Your task to perform on an android device: snooze an email in the gmail app Image 0: 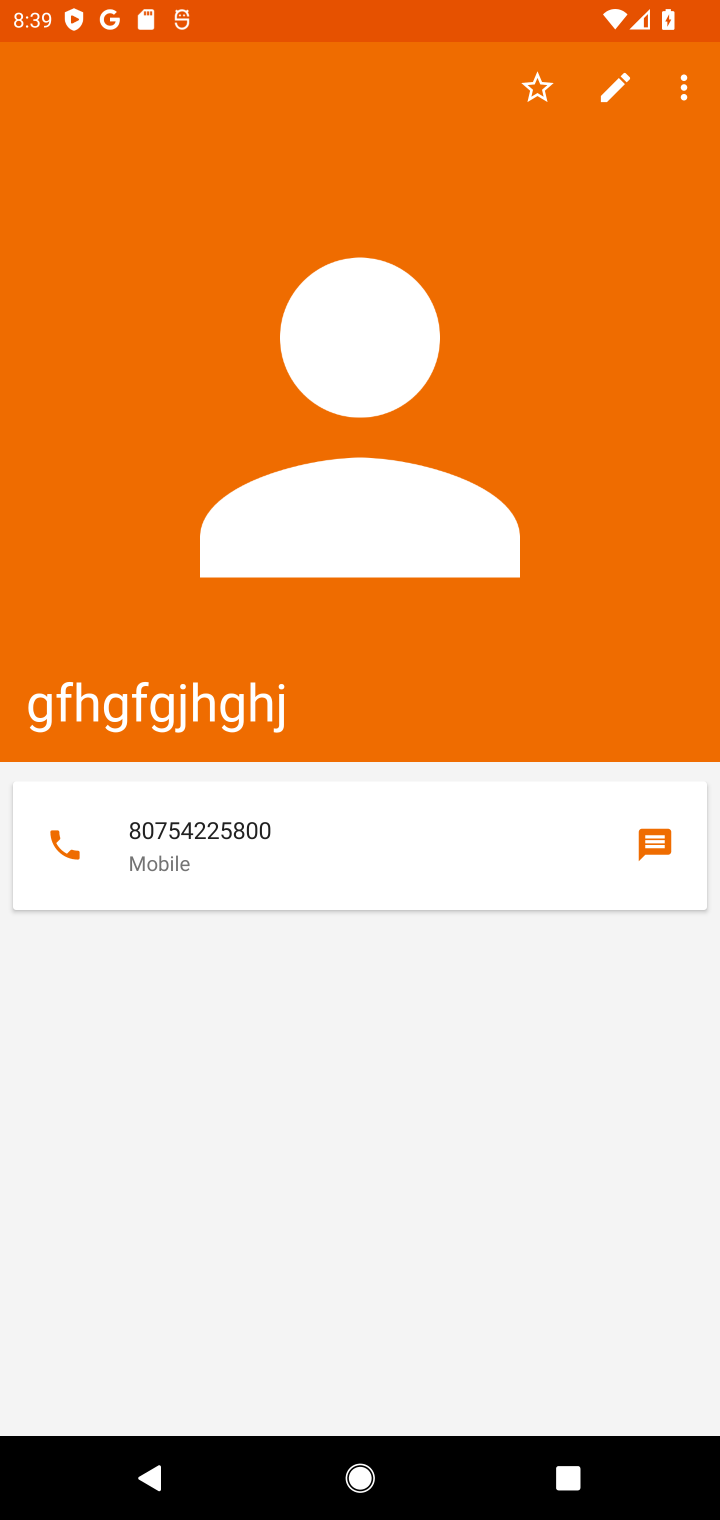
Step 0: press back button
Your task to perform on an android device: snooze an email in the gmail app Image 1: 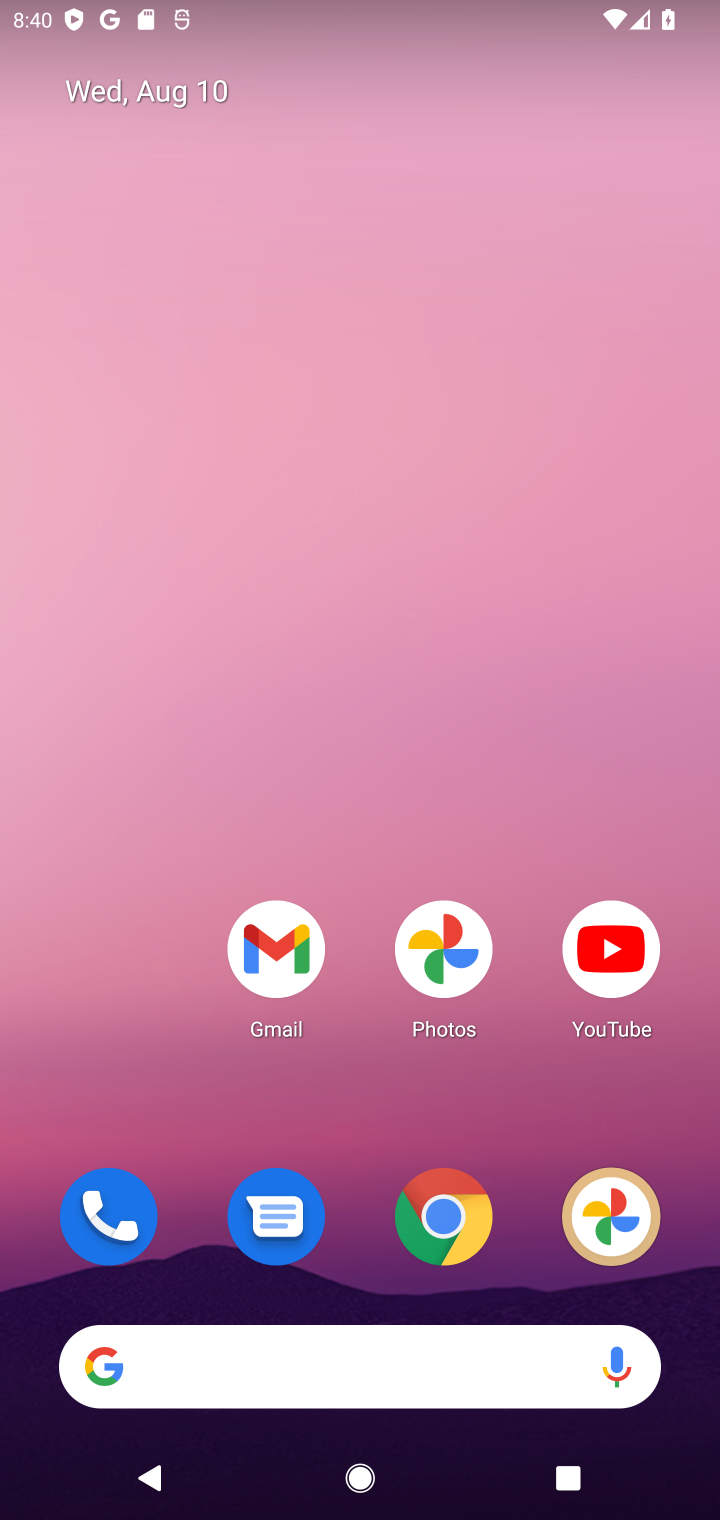
Step 1: click (603, 156)
Your task to perform on an android device: snooze an email in the gmail app Image 2: 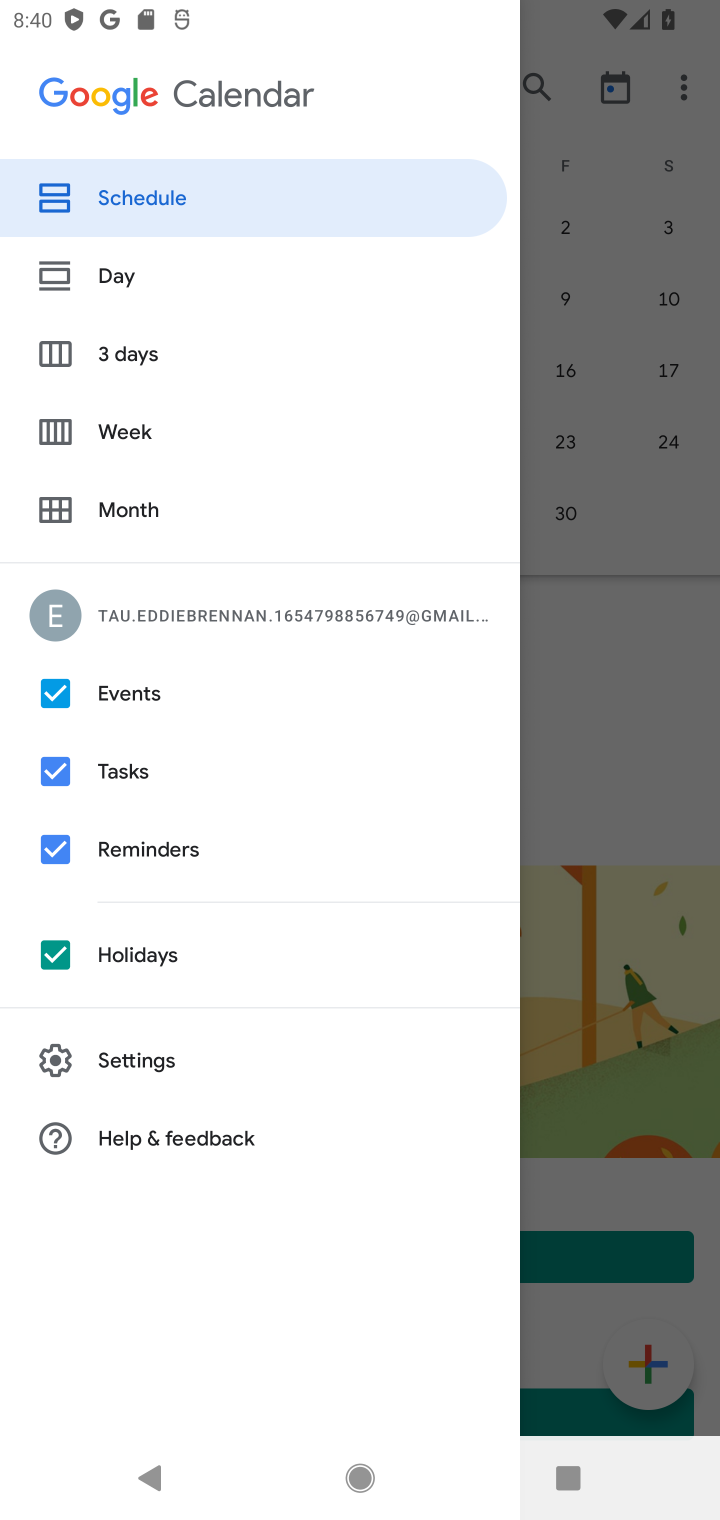
Step 2: press home button
Your task to perform on an android device: snooze an email in the gmail app Image 3: 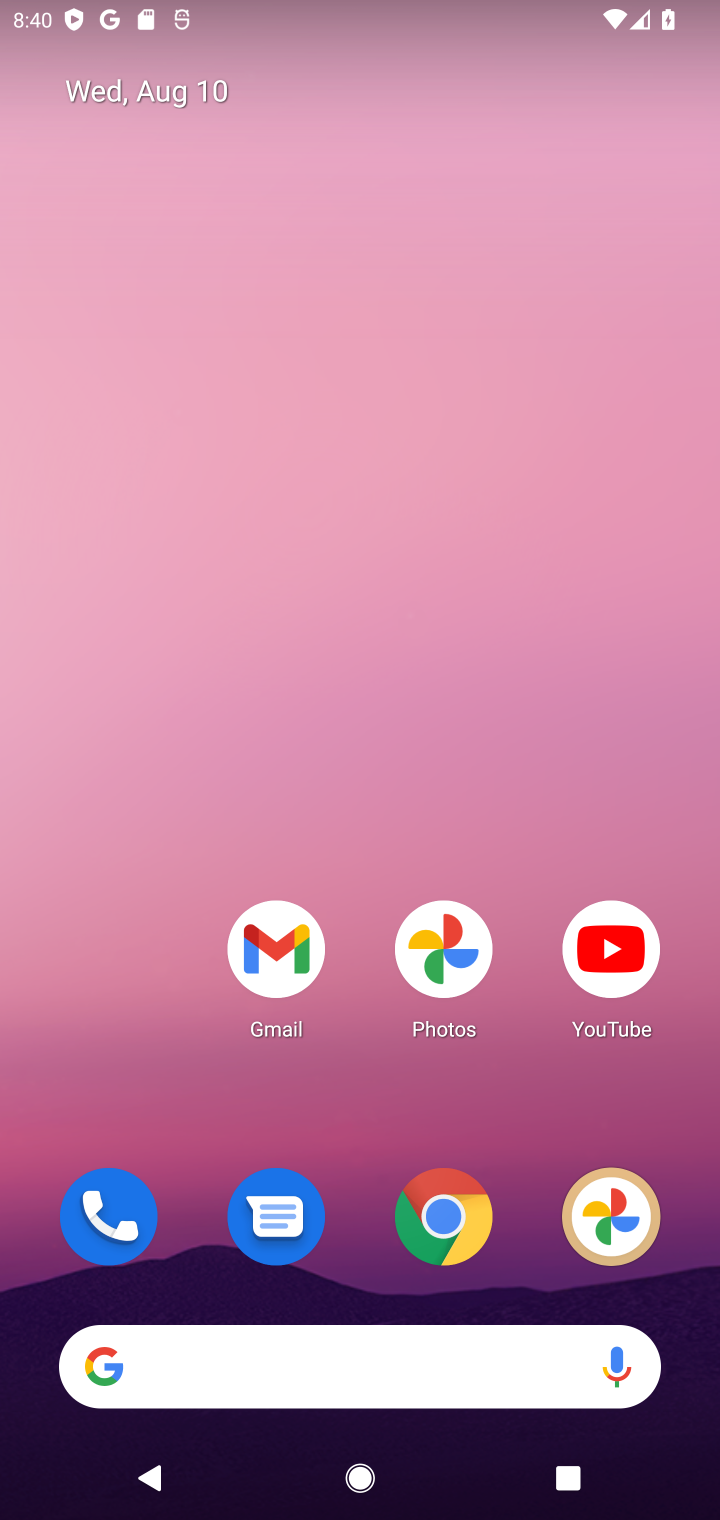
Step 3: click (280, 938)
Your task to perform on an android device: snooze an email in the gmail app Image 4: 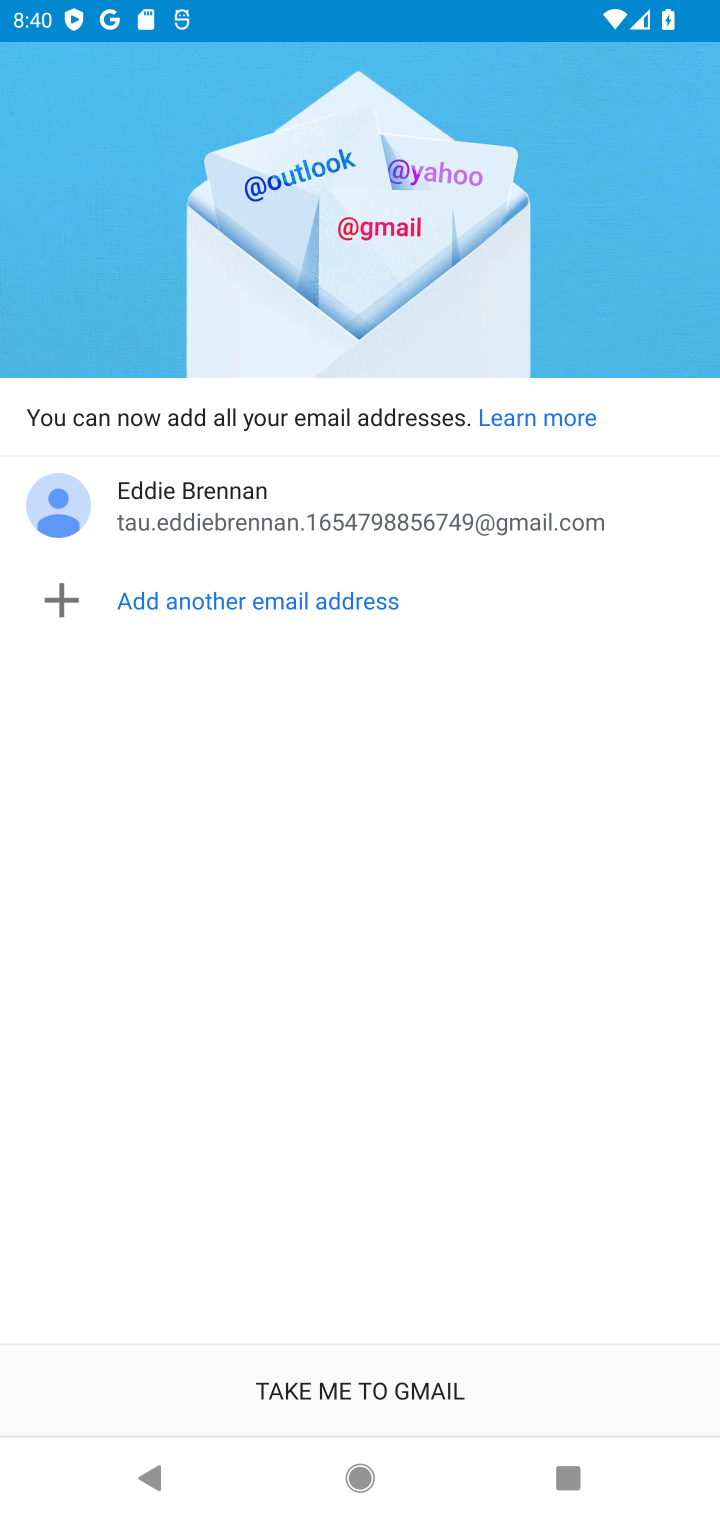
Step 4: click (471, 1399)
Your task to perform on an android device: snooze an email in the gmail app Image 5: 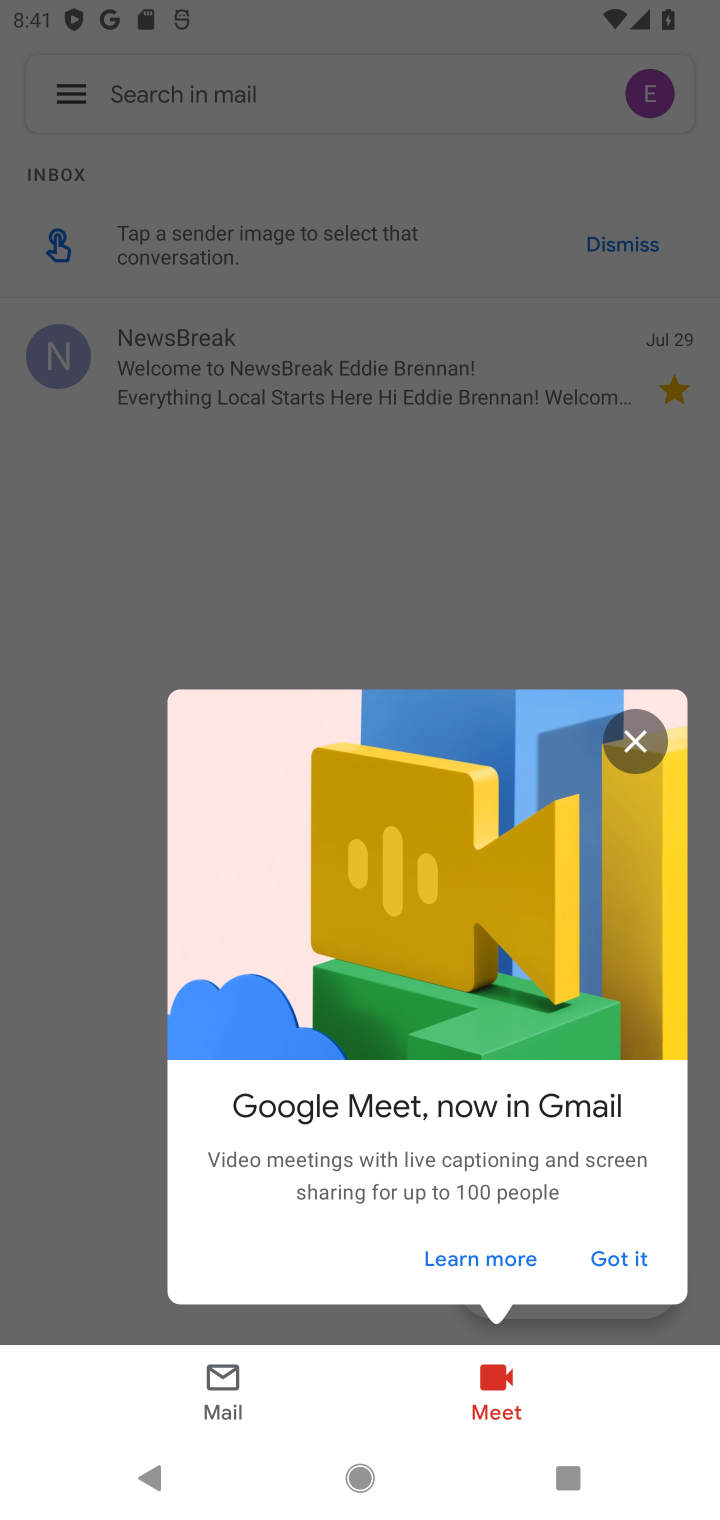
Step 5: click (611, 1243)
Your task to perform on an android device: snooze an email in the gmail app Image 6: 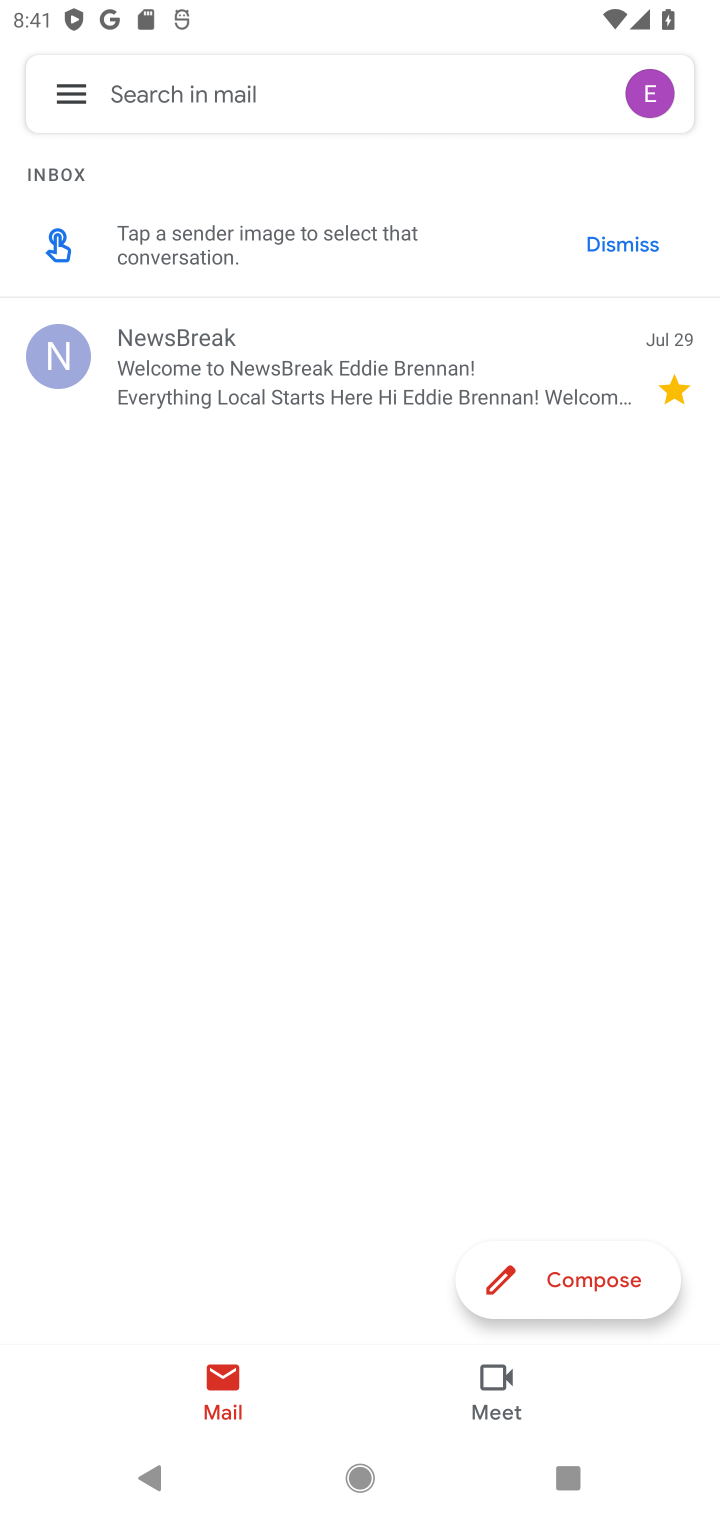
Step 6: click (48, 108)
Your task to perform on an android device: snooze an email in the gmail app Image 7: 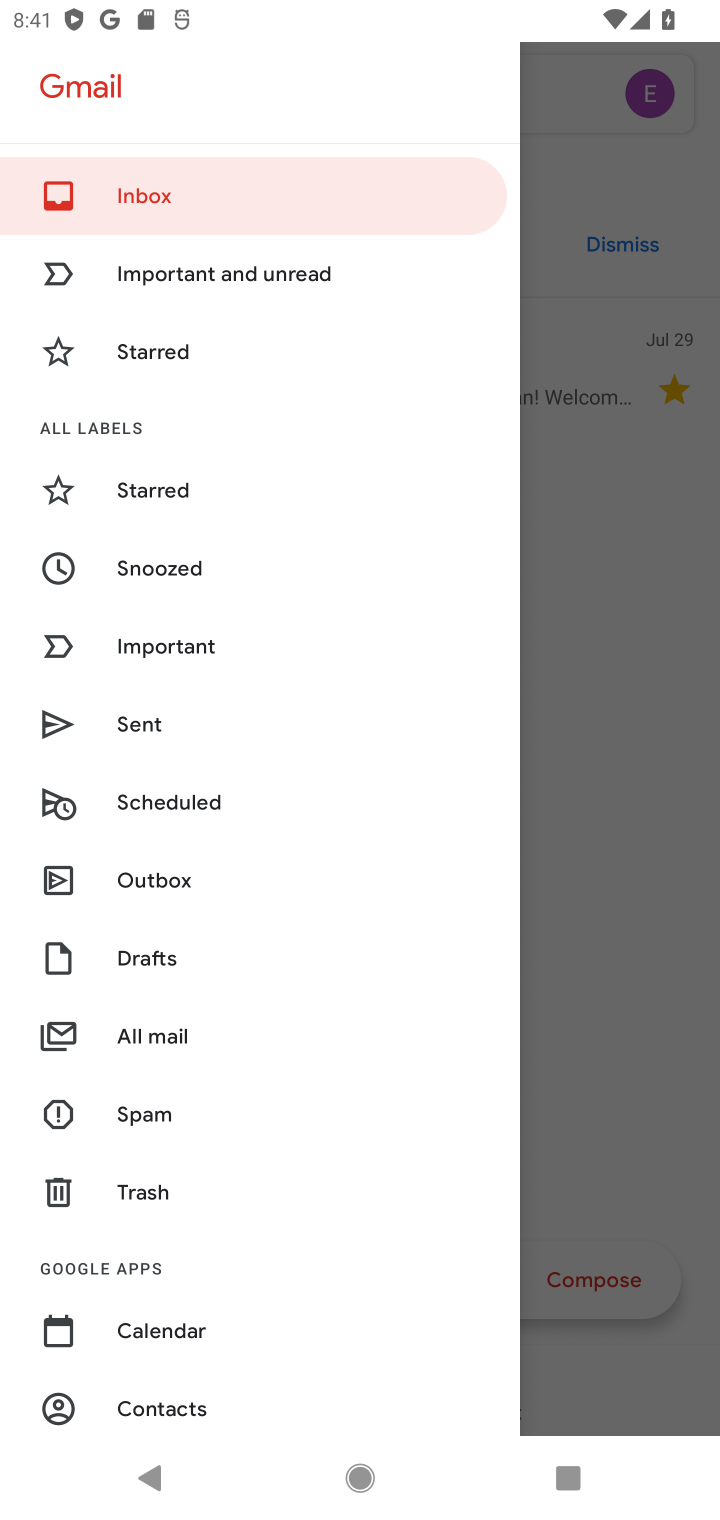
Step 7: click (225, 555)
Your task to perform on an android device: snooze an email in the gmail app Image 8: 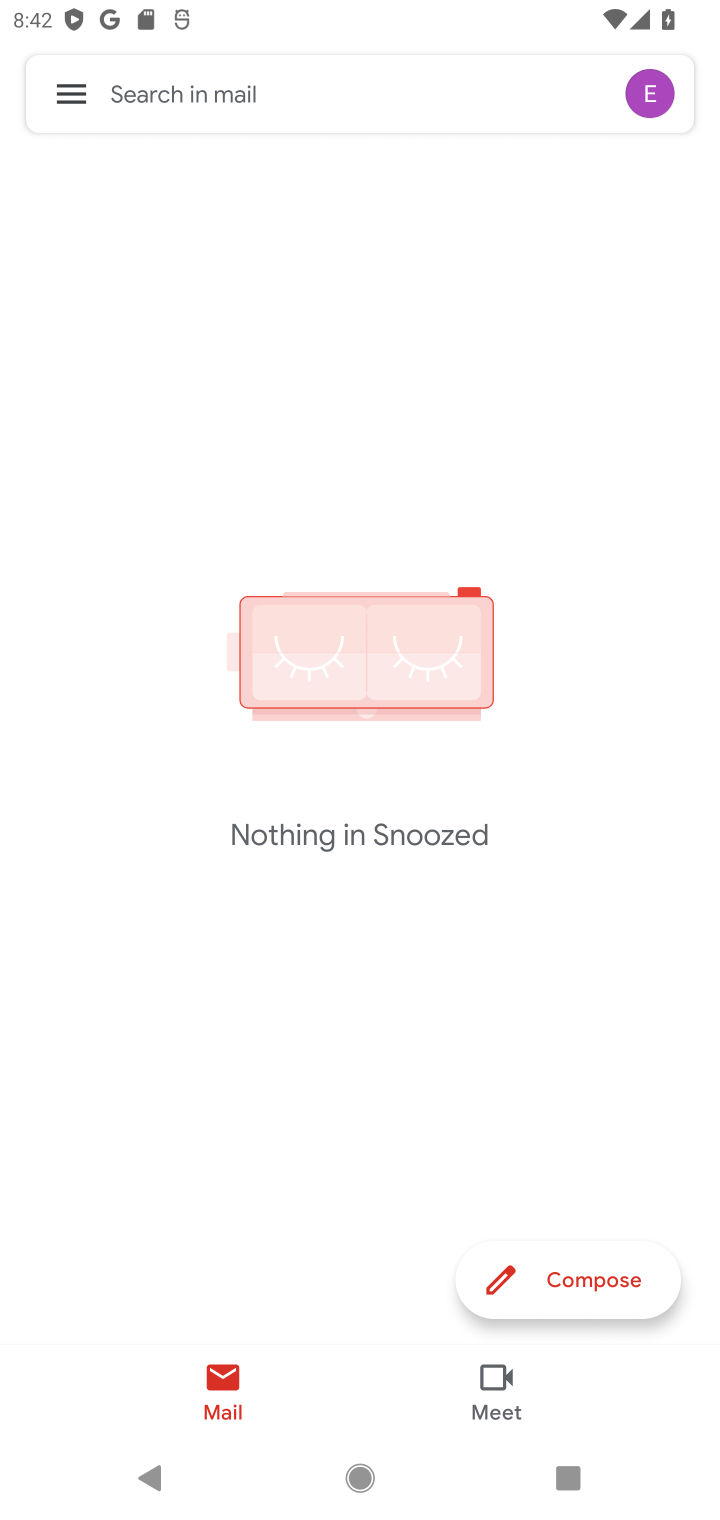
Step 8: task complete